Your task to perform on an android device: turn notification dots off Image 0: 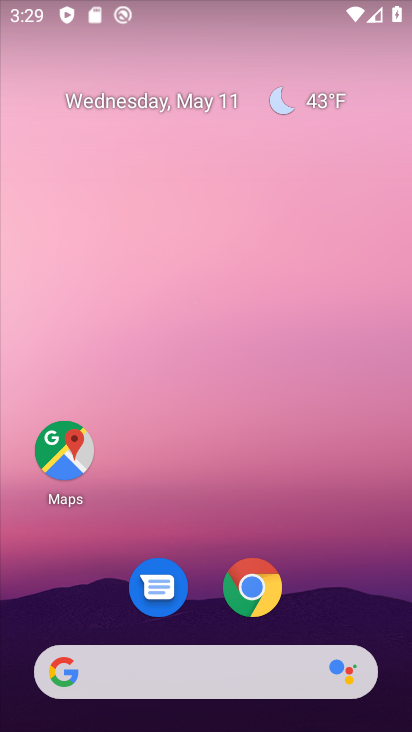
Step 0: drag from (302, 491) to (327, 171)
Your task to perform on an android device: turn notification dots off Image 1: 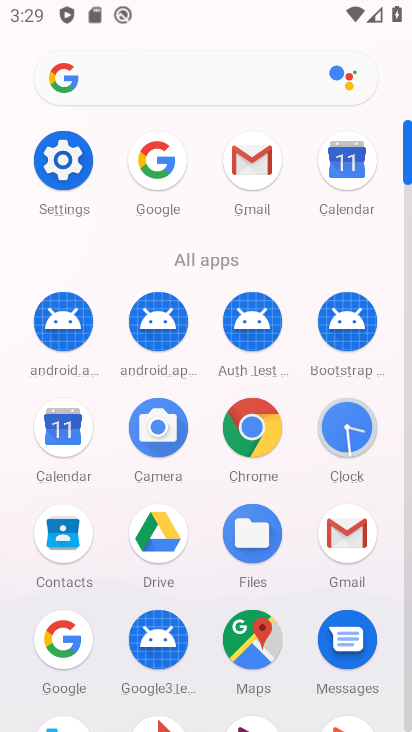
Step 1: click (60, 159)
Your task to perform on an android device: turn notification dots off Image 2: 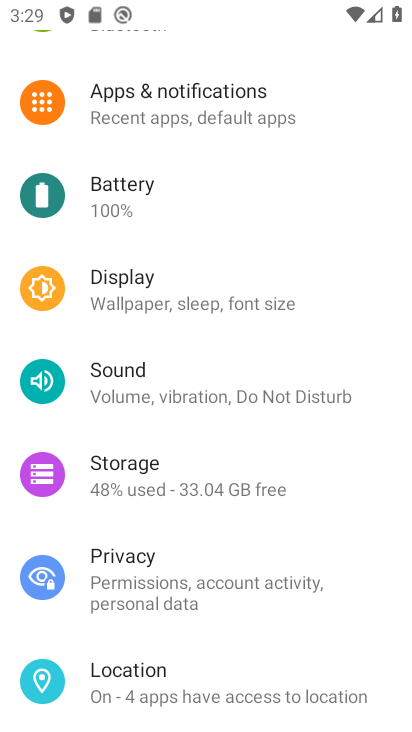
Step 2: click (96, 387)
Your task to perform on an android device: turn notification dots off Image 3: 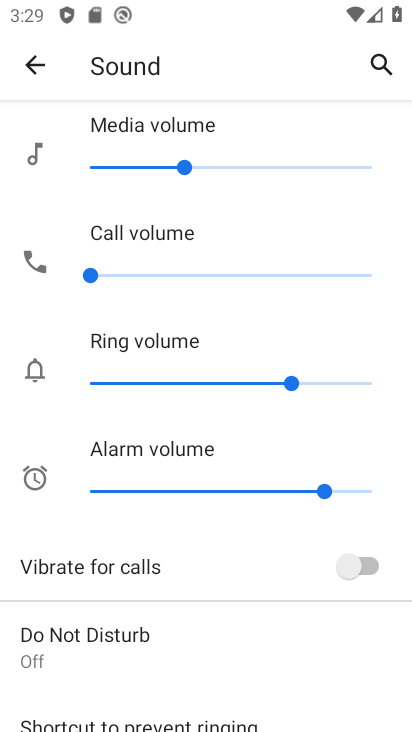
Step 3: drag from (143, 635) to (152, 291)
Your task to perform on an android device: turn notification dots off Image 4: 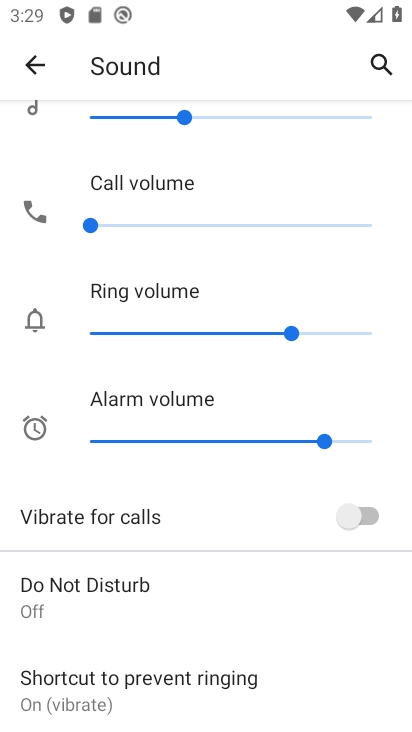
Step 4: drag from (74, 705) to (410, 32)
Your task to perform on an android device: turn notification dots off Image 5: 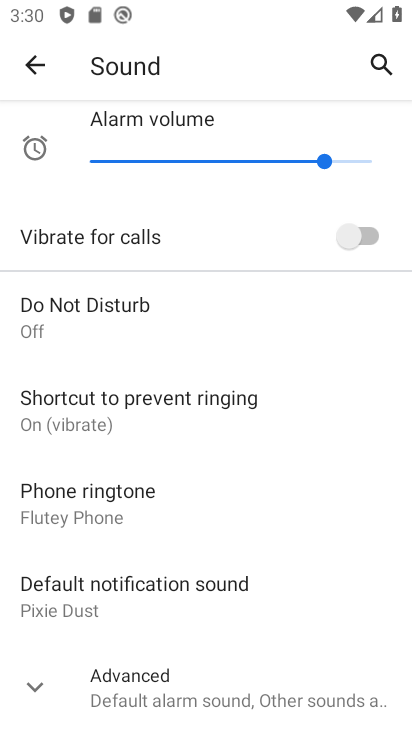
Step 5: click (38, 50)
Your task to perform on an android device: turn notification dots off Image 6: 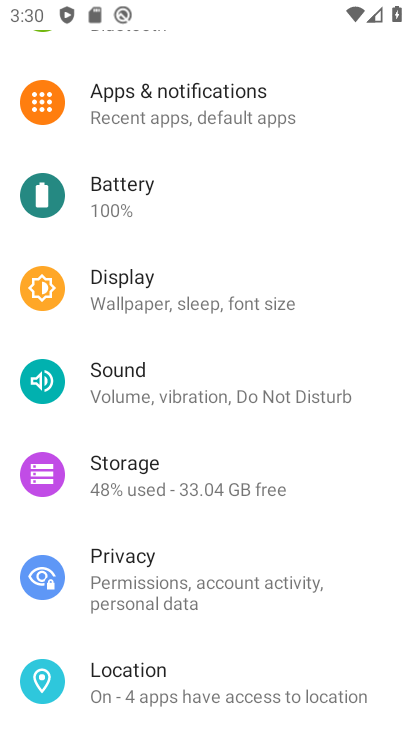
Step 6: click (105, 126)
Your task to perform on an android device: turn notification dots off Image 7: 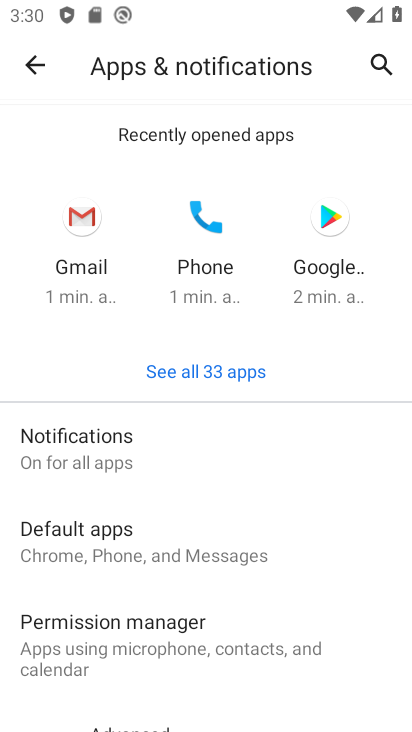
Step 7: task complete